Your task to perform on an android device: Turn on the flashlight Image 0: 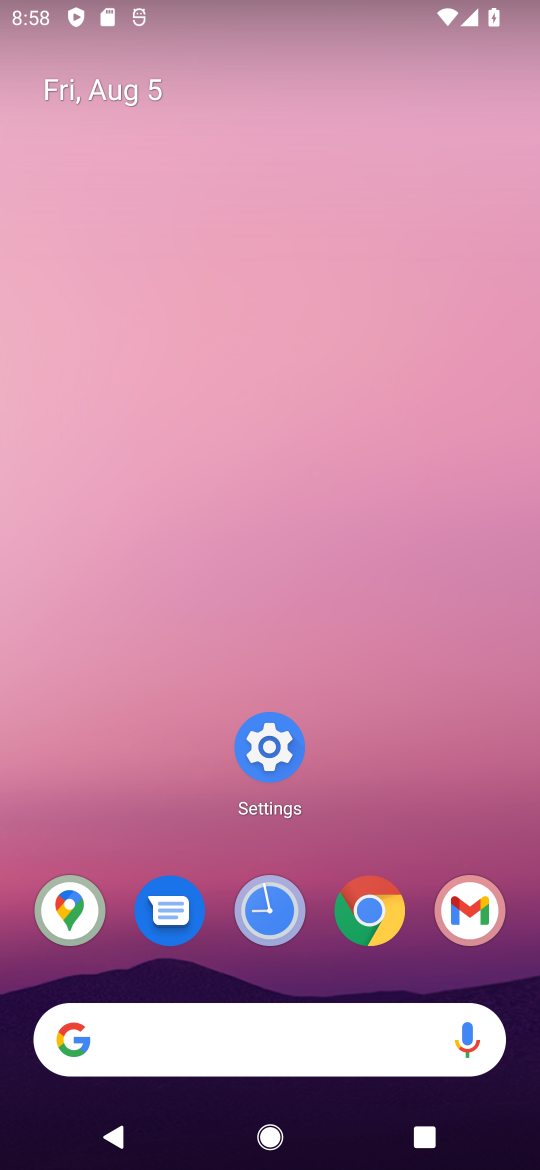
Step 0: drag from (345, 8) to (229, 873)
Your task to perform on an android device: Turn on the flashlight Image 1: 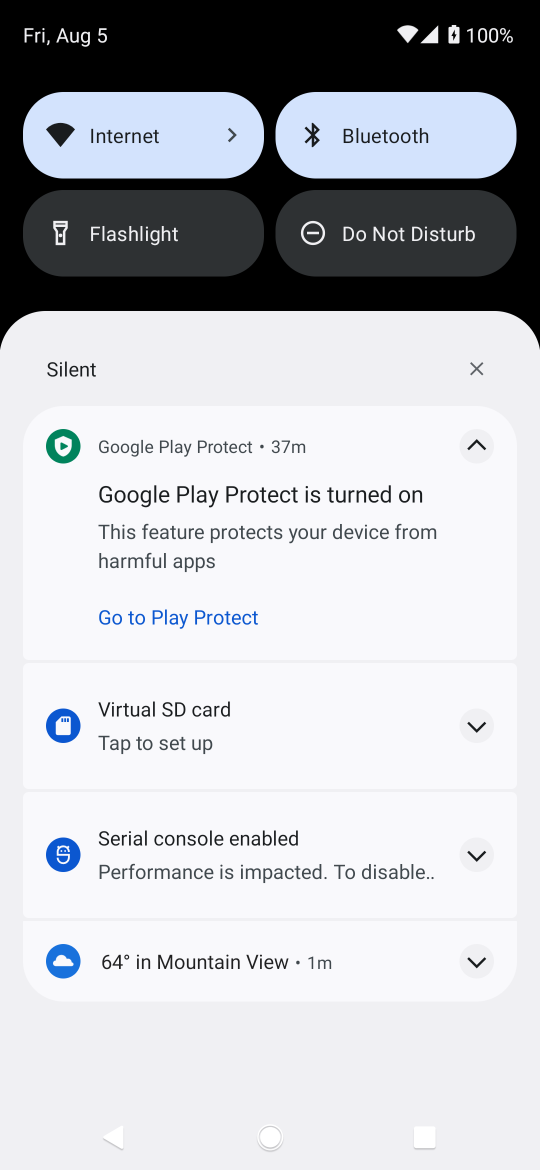
Step 1: click (167, 242)
Your task to perform on an android device: Turn on the flashlight Image 2: 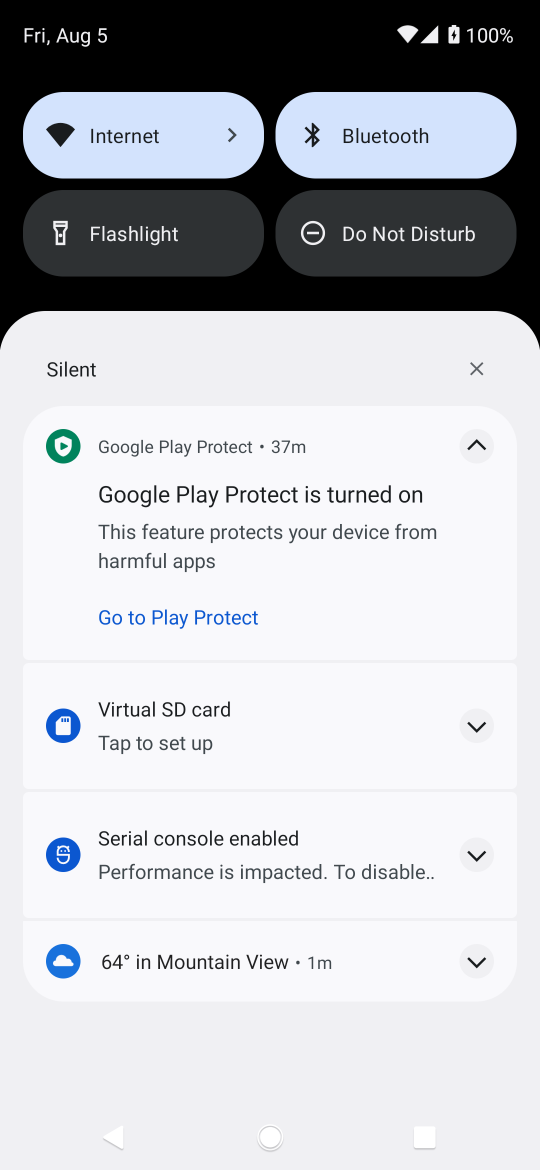
Step 2: click (121, 227)
Your task to perform on an android device: Turn on the flashlight Image 3: 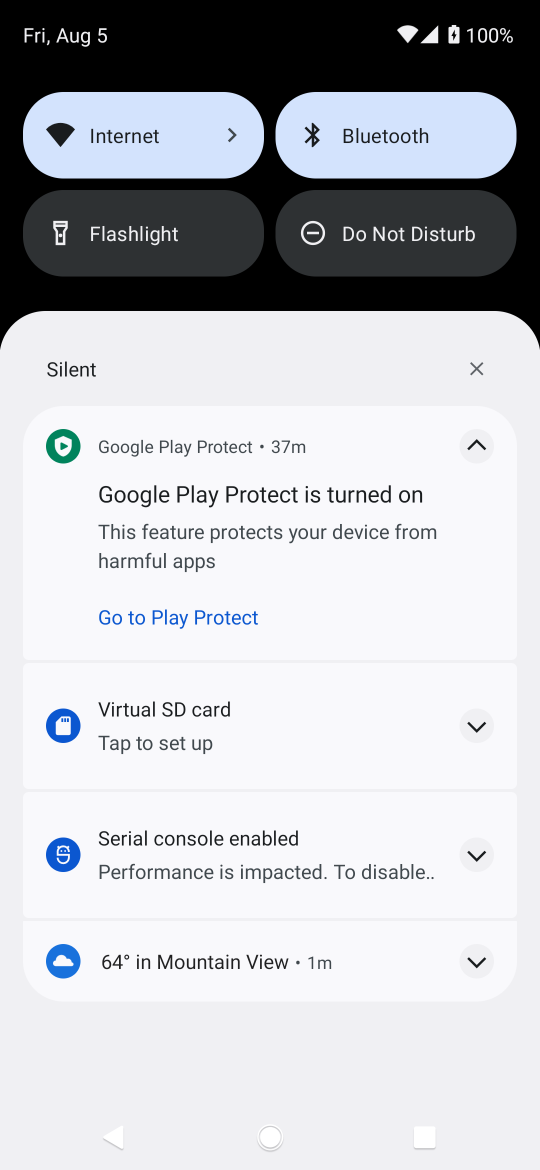
Step 3: task complete